Your task to perform on an android device: Open settings Image 0: 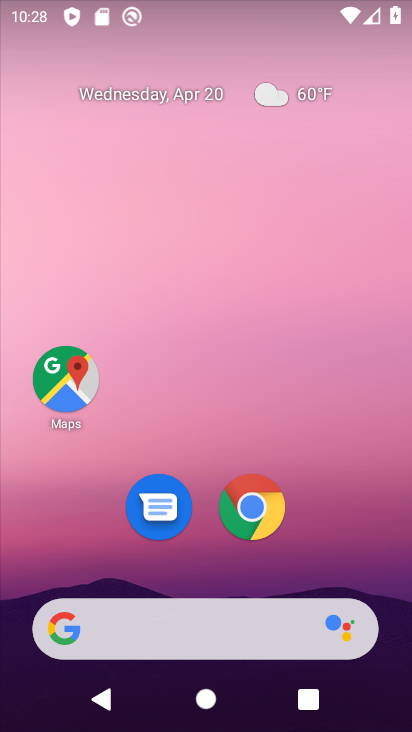
Step 0: drag from (137, 399) to (123, 142)
Your task to perform on an android device: Open settings Image 1: 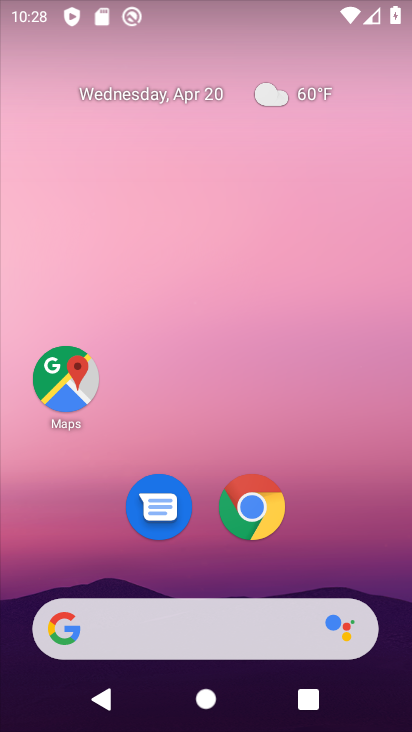
Step 1: drag from (182, 536) to (160, 222)
Your task to perform on an android device: Open settings Image 2: 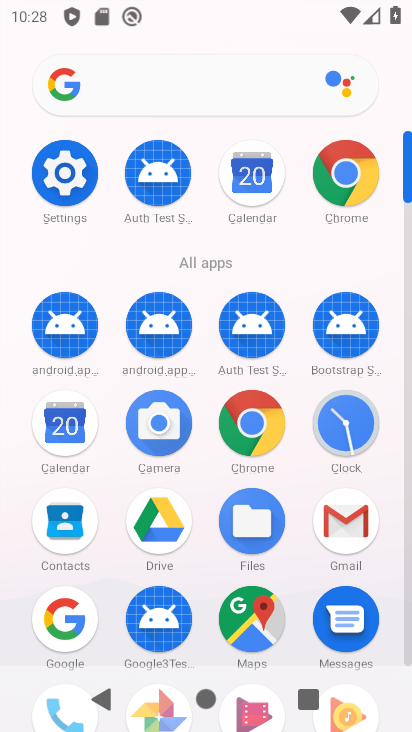
Step 2: click (79, 190)
Your task to perform on an android device: Open settings Image 3: 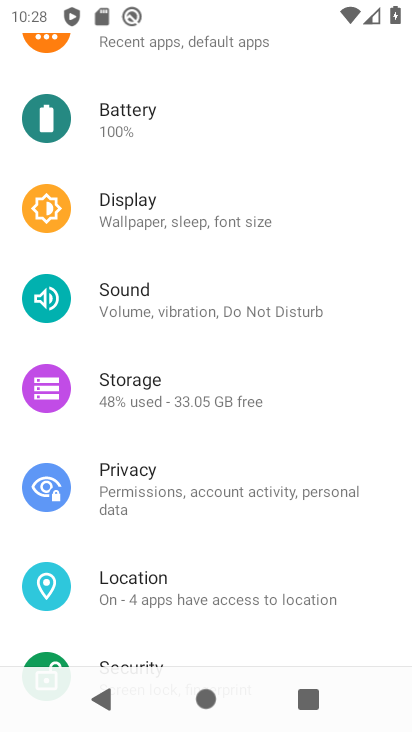
Step 3: task complete